Your task to perform on an android device: open app "Facebook" (install if not already installed) Image 0: 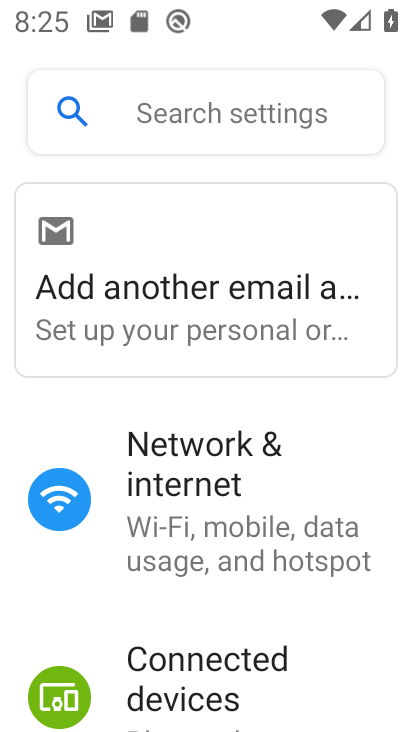
Step 0: press home button
Your task to perform on an android device: open app "Facebook" (install if not already installed) Image 1: 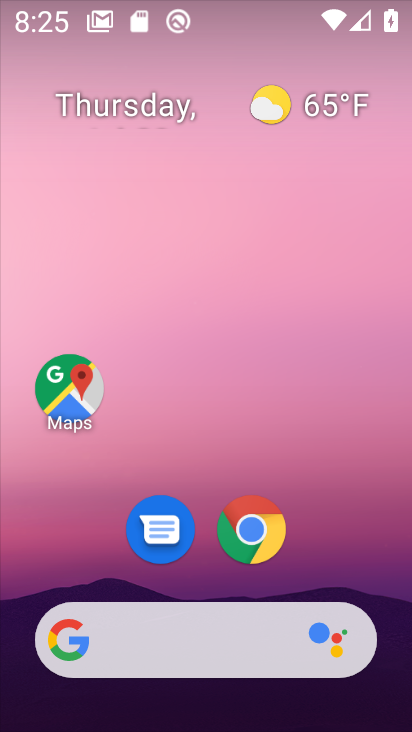
Step 1: drag from (233, 716) to (246, 160)
Your task to perform on an android device: open app "Facebook" (install if not already installed) Image 2: 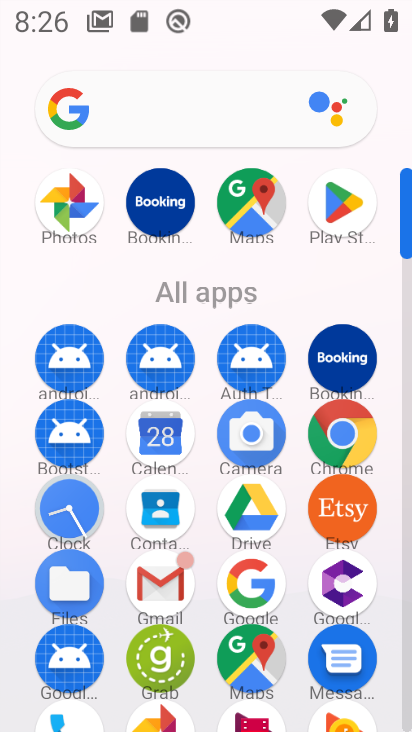
Step 2: drag from (291, 653) to (315, 356)
Your task to perform on an android device: open app "Facebook" (install if not already installed) Image 3: 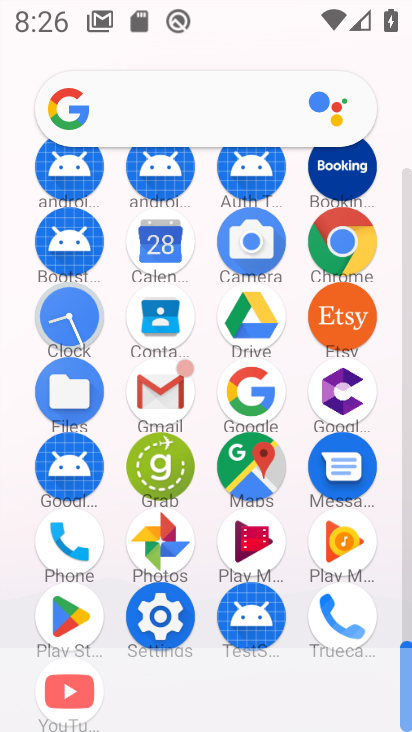
Step 3: click (58, 620)
Your task to perform on an android device: open app "Facebook" (install if not already installed) Image 4: 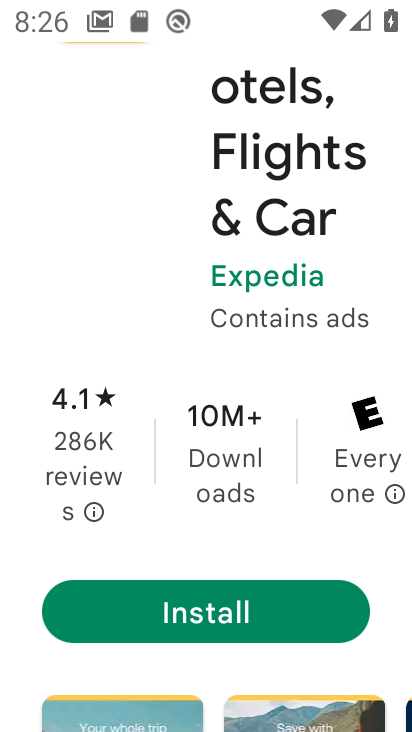
Step 4: drag from (177, 143) to (137, 431)
Your task to perform on an android device: open app "Facebook" (install if not already installed) Image 5: 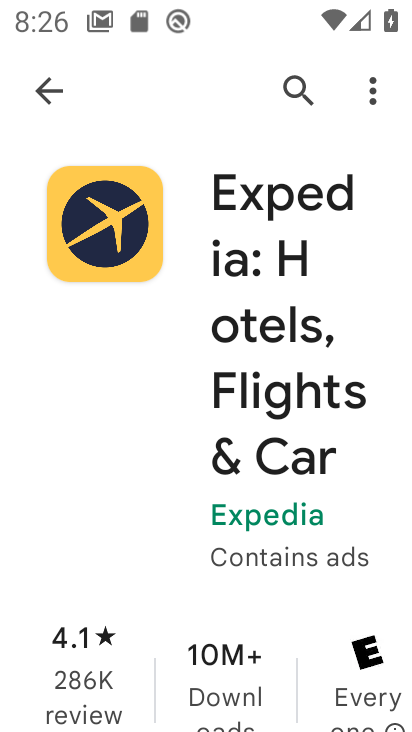
Step 5: click (286, 82)
Your task to perform on an android device: open app "Facebook" (install if not already installed) Image 6: 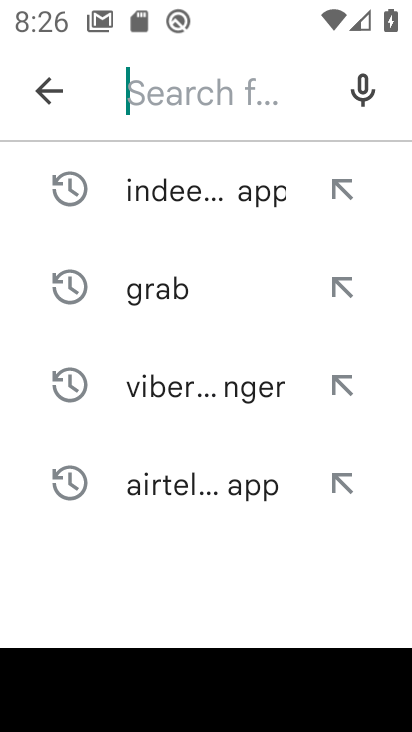
Step 6: type "Facebook"
Your task to perform on an android device: open app "Facebook" (install if not already installed) Image 7: 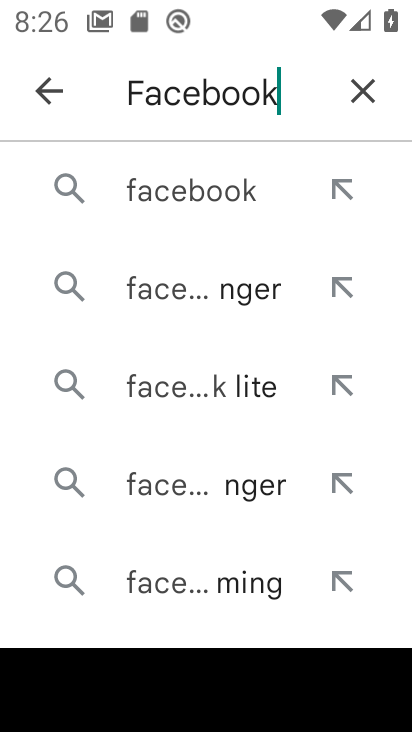
Step 7: click (170, 197)
Your task to perform on an android device: open app "Facebook" (install if not already installed) Image 8: 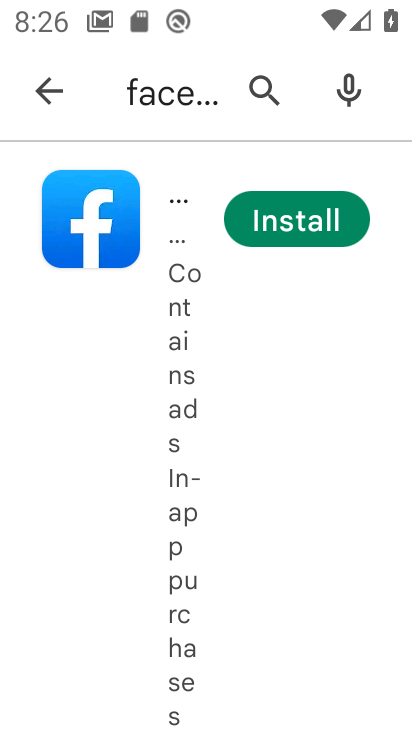
Step 8: click (294, 222)
Your task to perform on an android device: open app "Facebook" (install if not already installed) Image 9: 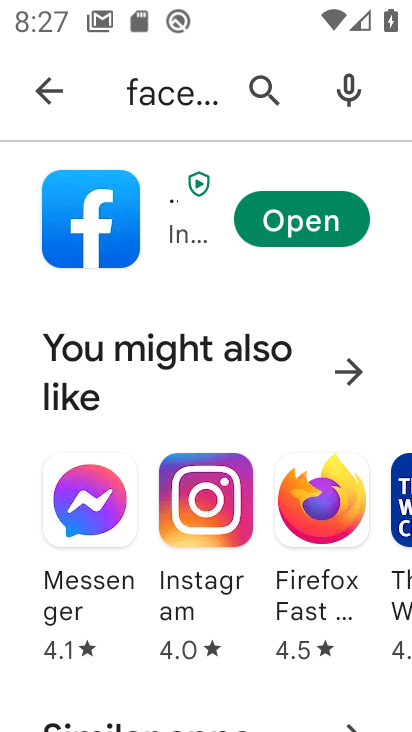
Step 9: click (293, 225)
Your task to perform on an android device: open app "Facebook" (install if not already installed) Image 10: 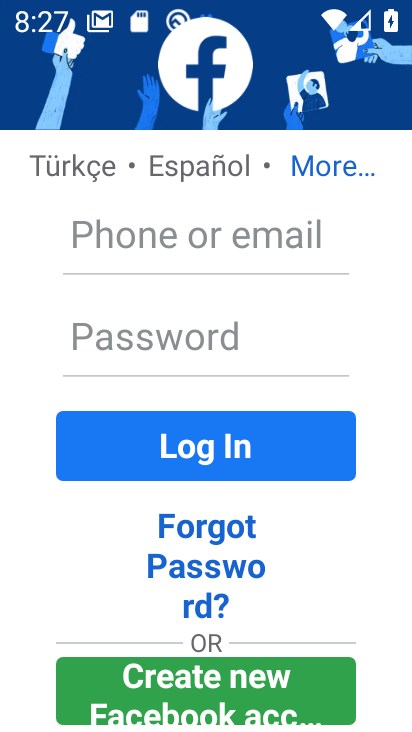
Step 10: task complete